Your task to perform on an android device: Open internet settings Image 0: 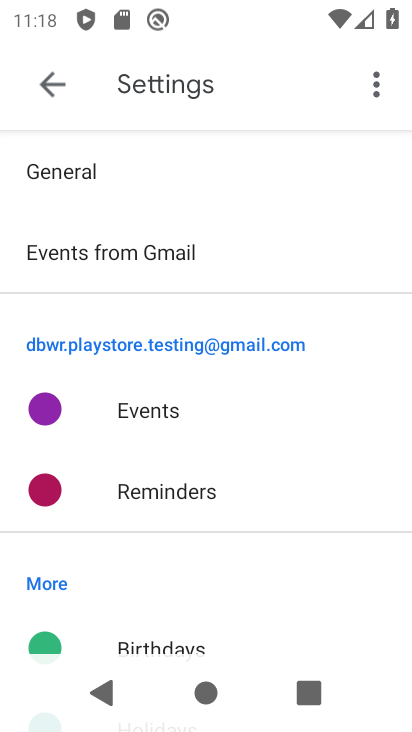
Step 0: press home button
Your task to perform on an android device: Open internet settings Image 1: 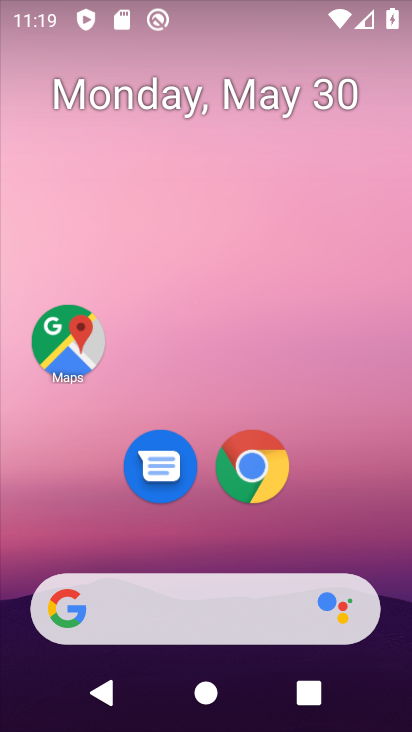
Step 1: drag from (207, 599) to (185, 26)
Your task to perform on an android device: Open internet settings Image 2: 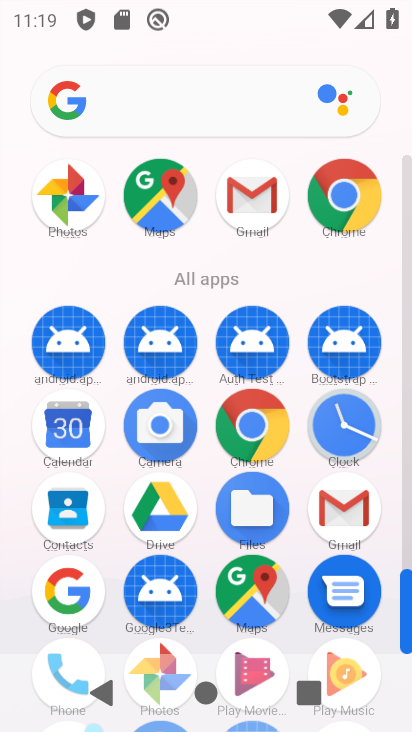
Step 2: drag from (212, 597) to (178, 248)
Your task to perform on an android device: Open internet settings Image 3: 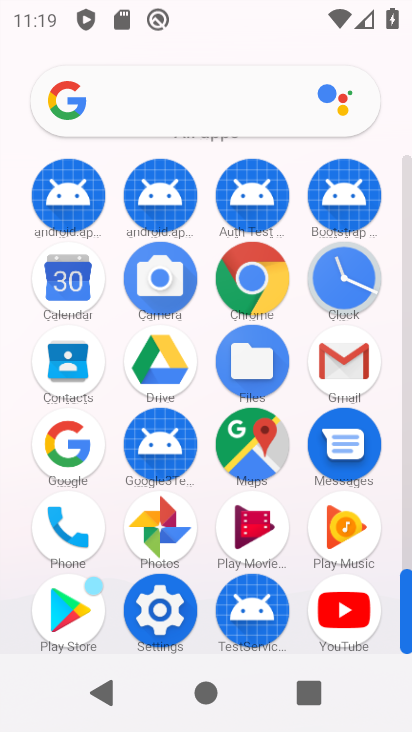
Step 3: click (148, 619)
Your task to perform on an android device: Open internet settings Image 4: 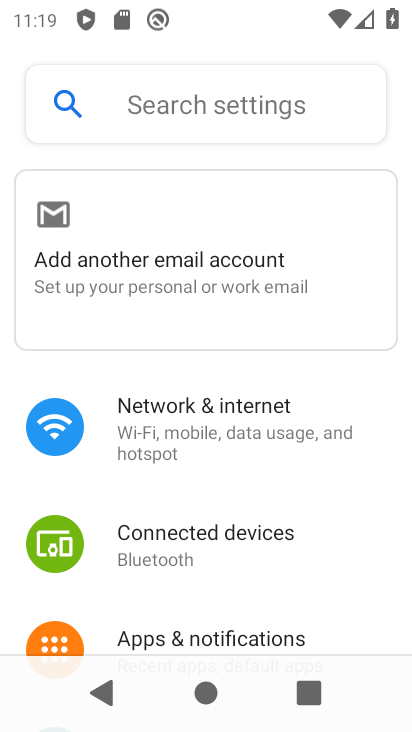
Step 4: click (170, 419)
Your task to perform on an android device: Open internet settings Image 5: 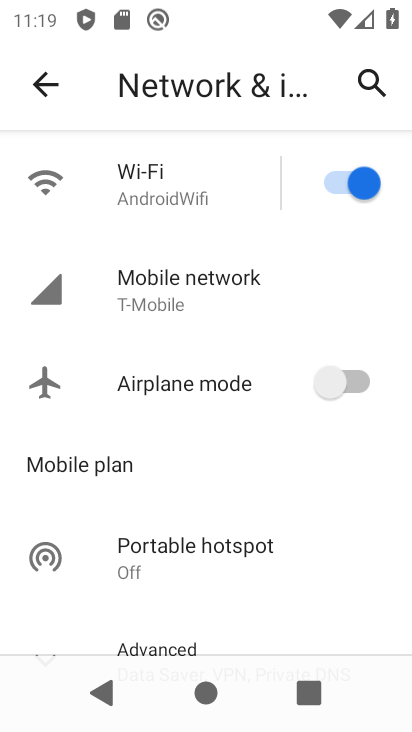
Step 5: task complete